Your task to perform on an android device: turn off priority inbox in the gmail app Image 0: 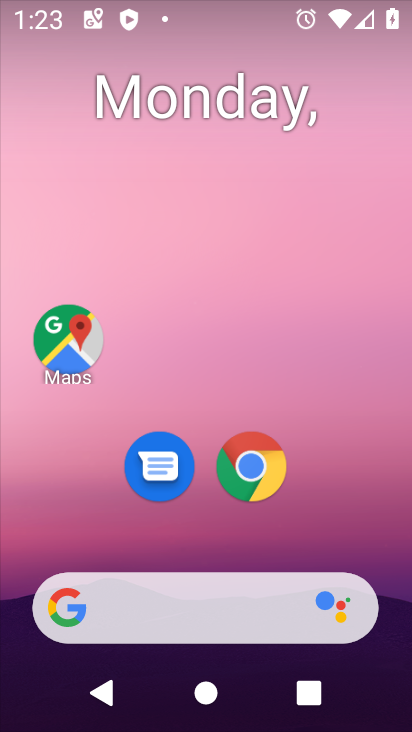
Step 0: drag from (399, 610) to (274, 38)
Your task to perform on an android device: turn off priority inbox in the gmail app Image 1: 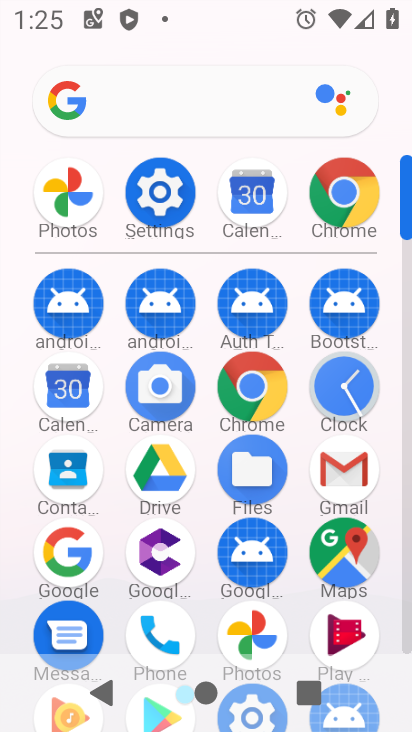
Step 1: click (356, 467)
Your task to perform on an android device: turn off priority inbox in the gmail app Image 2: 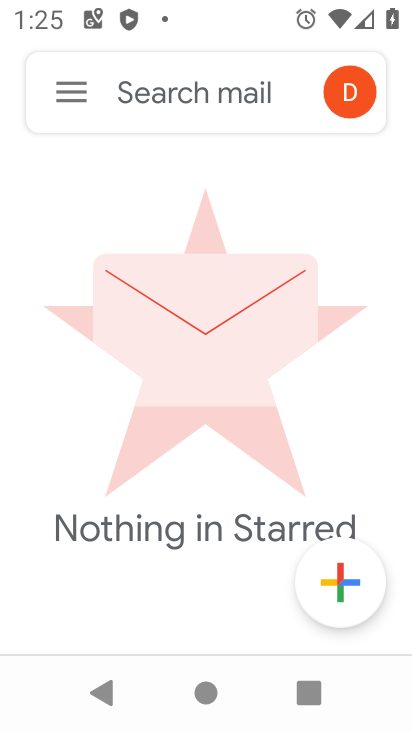
Step 2: click (58, 110)
Your task to perform on an android device: turn off priority inbox in the gmail app Image 3: 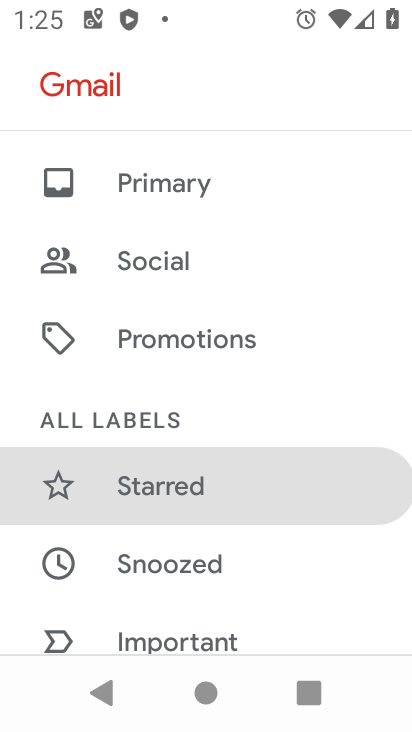
Step 3: drag from (199, 586) to (248, 191)
Your task to perform on an android device: turn off priority inbox in the gmail app Image 4: 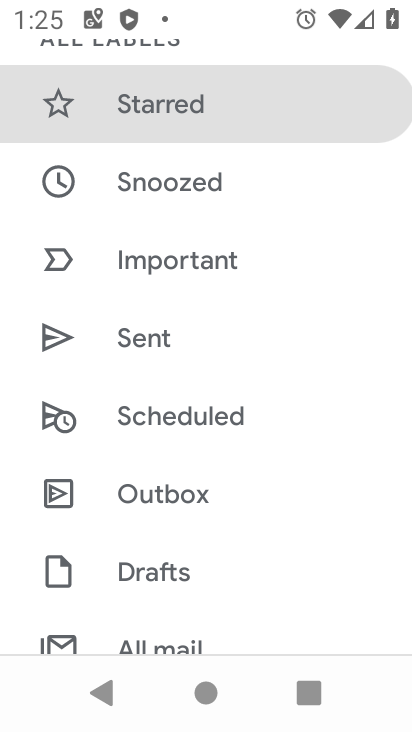
Step 4: drag from (247, 207) to (159, 648)
Your task to perform on an android device: turn off priority inbox in the gmail app Image 5: 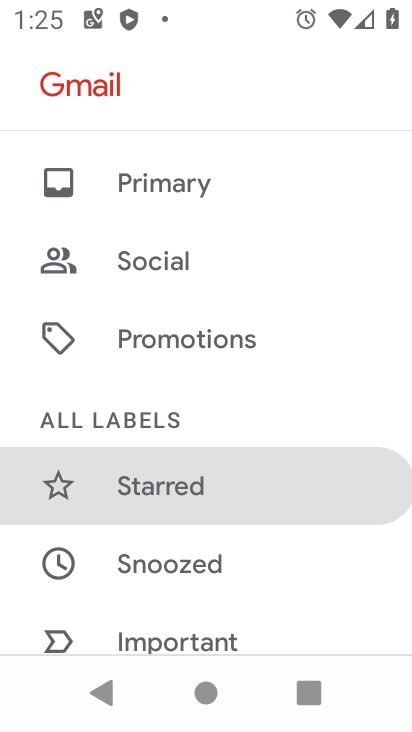
Step 5: drag from (176, 593) to (224, 151)
Your task to perform on an android device: turn off priority inbox in the gmail app Image 6: 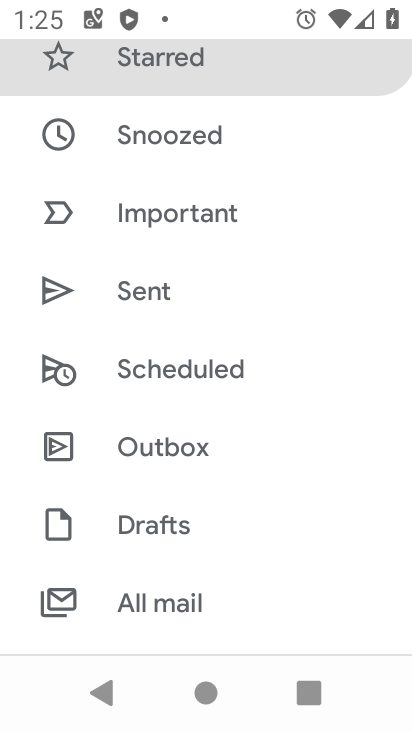
Step 6: drag from (174, 609) to (265, 101)
Your task to perform on an android device: turn off priority inbox in the gmail app Image 7: 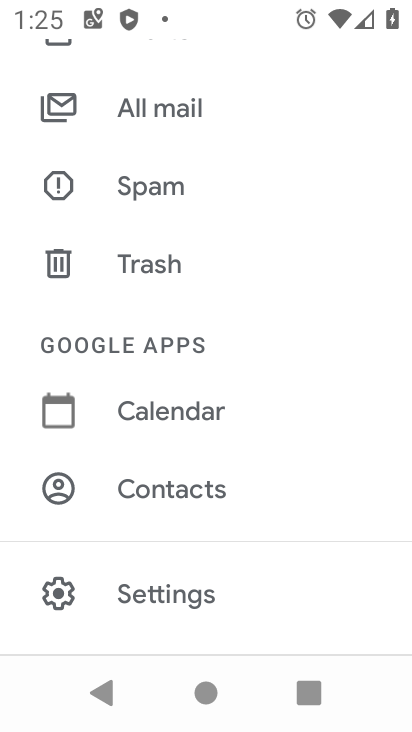
Step 7: click (198, 621)
Your task to perform on an android device: turn off priority inbox in the gmail app Image 8: 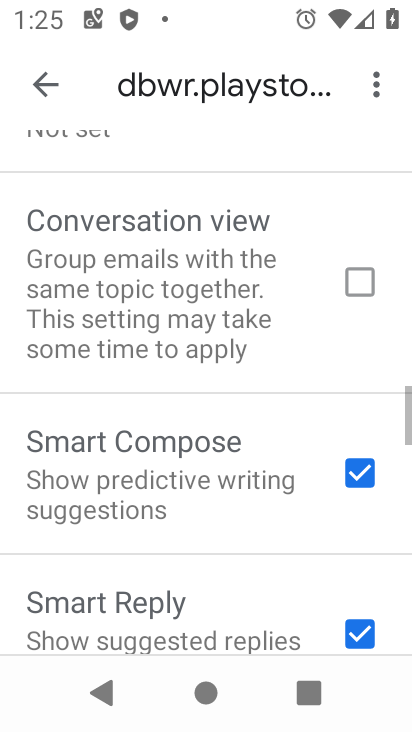
Step 8: drag from (163, 265) to (113, 720)
Your task to perform on an android device: turn off priority inbox in the gmail app Image 9: 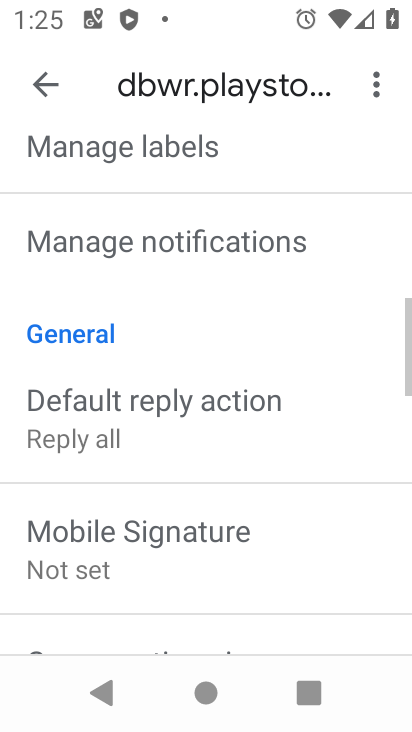
Step 9: drag from (163, 272) to (144, 728)
Your task to perform on an android device: turn off priority inbox in the gmail app Image 10: 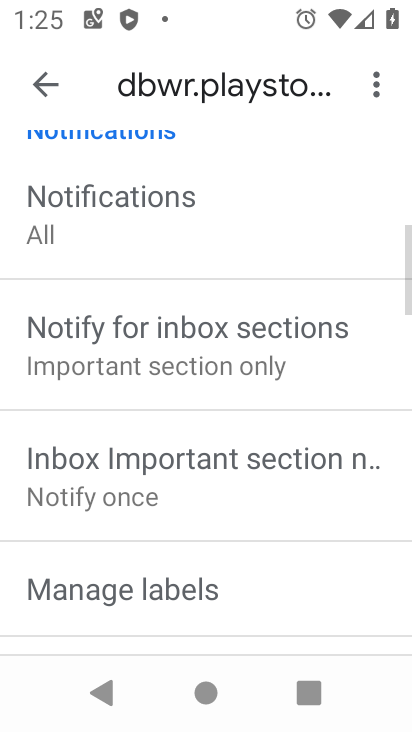
Step 10: drag from (157, 296) to (181, 588)
Your task to perform on an android device: turn off priority inbox in the gmail app Image 11: 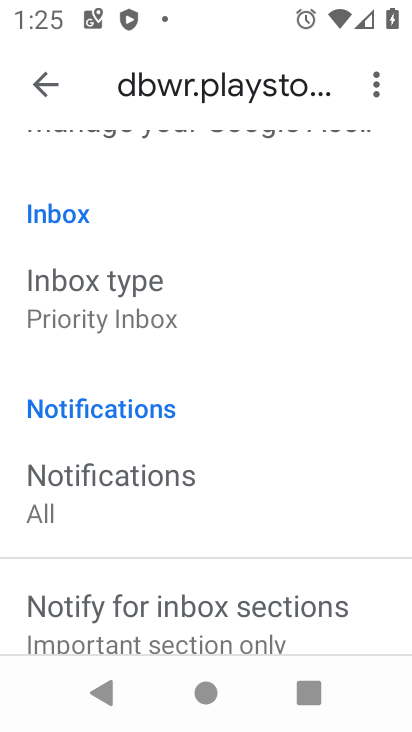
Step 11: click (143, 338)
Your task to perform on an android device: turn off priority inbox in the gmail app Image 12: 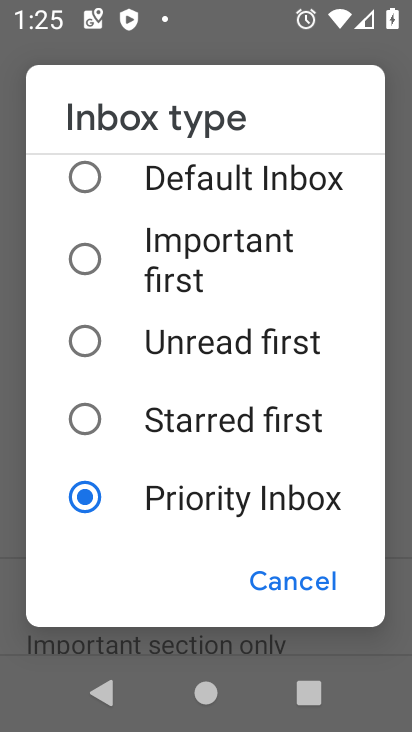
Step 12: click (103, 161)
Your task to perform on an android device: turn off priority inbox in the gmail app Image 13: 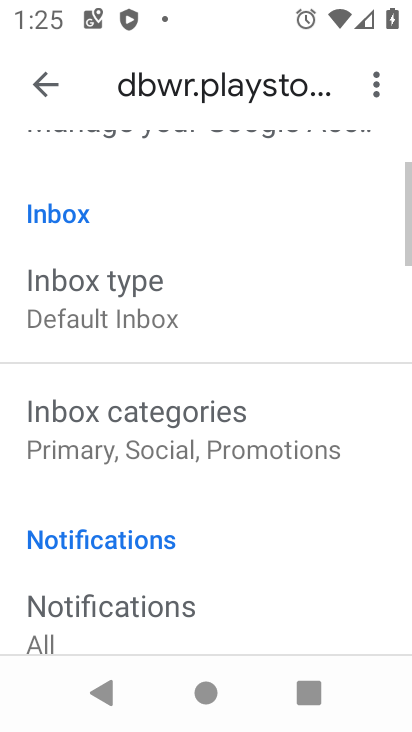
Step 13: task complete